Your task to perform on an android device: check out phone information Image 0: 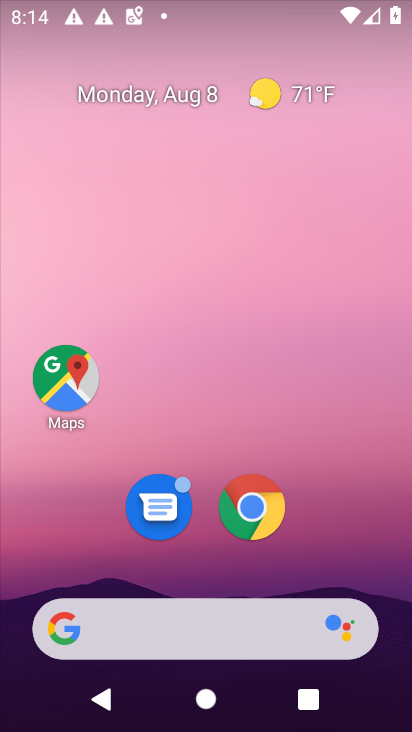
Step 0: drag from (213, 584) to (333, 19)
Your task to perform on an android device: check out phone information Image 1: 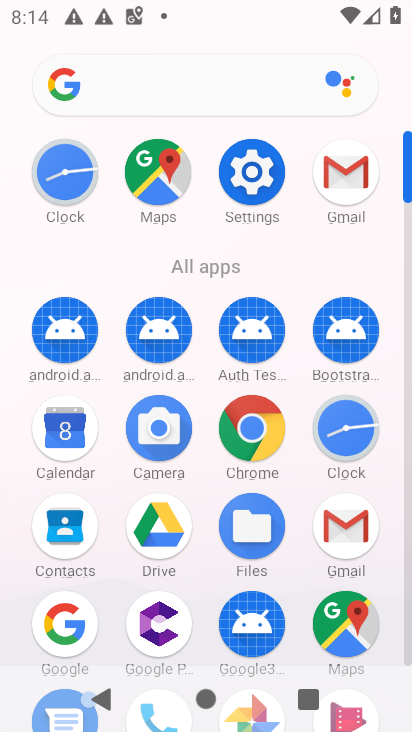
Step 1: click (254, 172)
Your task to perform on an android device: check out phone information Image 2: 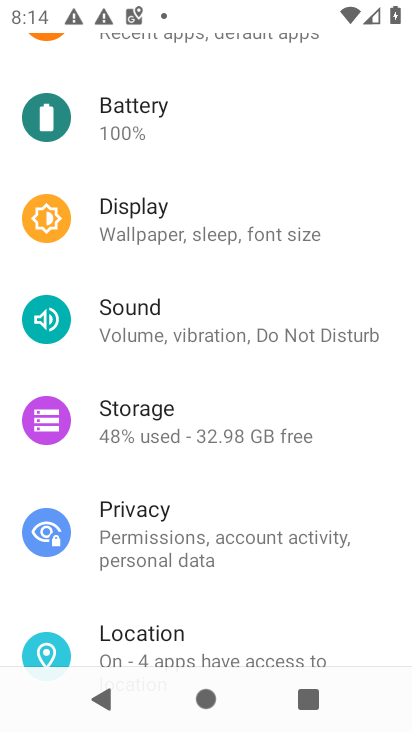
Step 2: drag from (70, 622) to (52, 50)
Your task to perform on an android device: check out phone information Image 3: 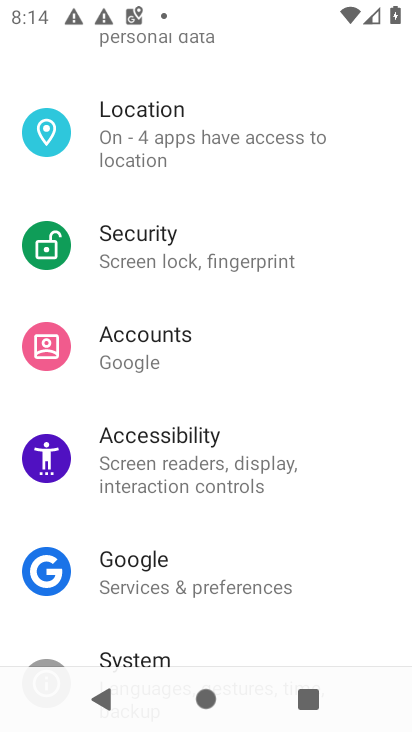
Step 3: drag from (213, 560) to (180, 250)
Your task to perform on an android device: check out phone information Image 4: 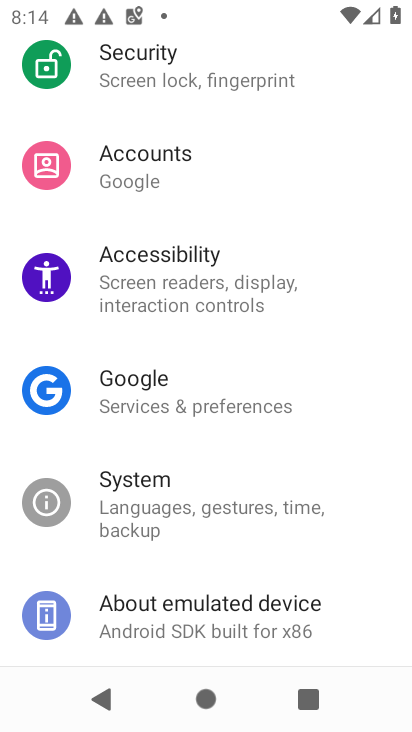
Step 4: click (207, 618)
Your task to perform on an android device: check out phone information Image 5: 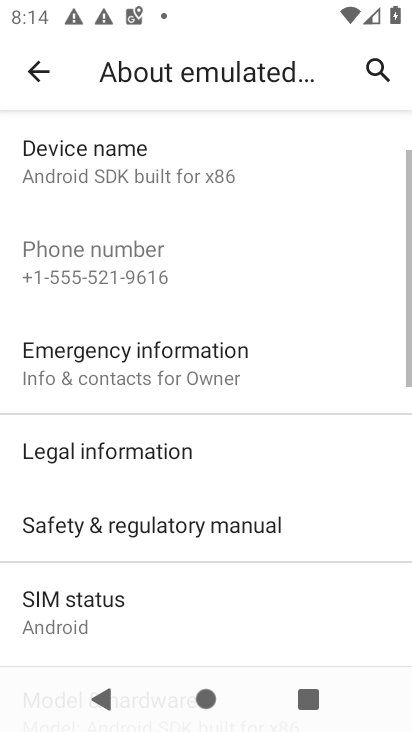
Step 5: task complete